Your task to perform on an android device: create a new album in the google photos Image 0: 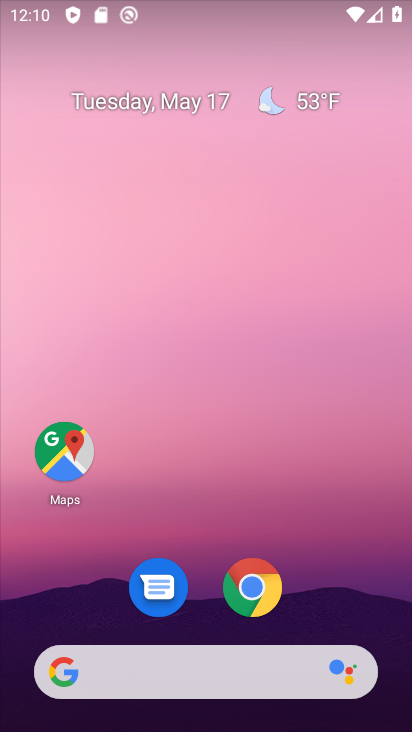
Step 0: drag from (218, 559) to (267, 157)
Your task to perform on an android device: create a new album in the google photos Image 1: 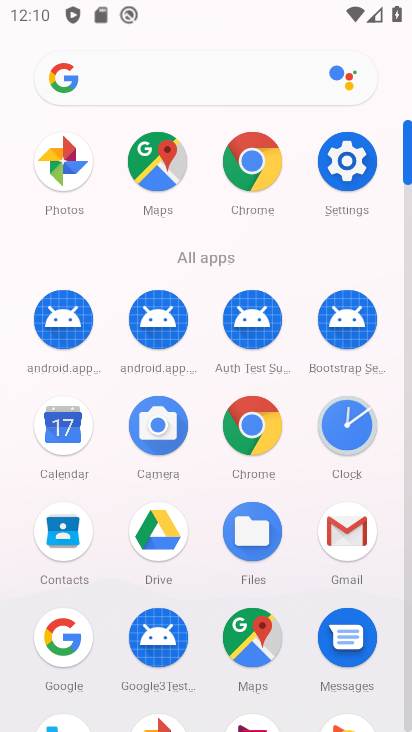
Step 1: drag from (220, 582) to (310, 159)
Your task to perform on an android device: create a new album in the google photos Image 2: 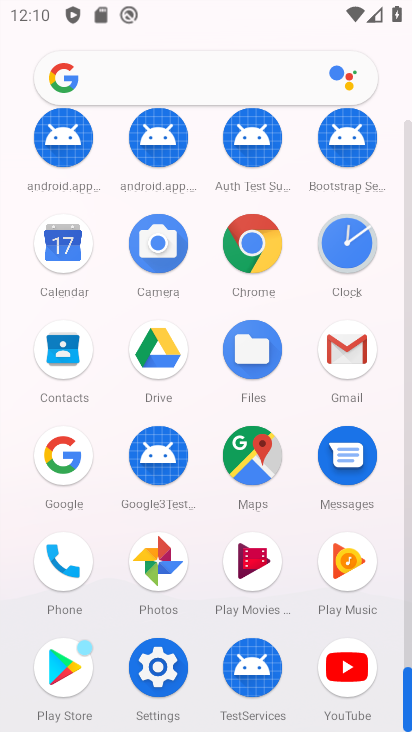
Step 2: click (162, 547)
Your task to perform on an android device: create a new album in the google photos Image 3: 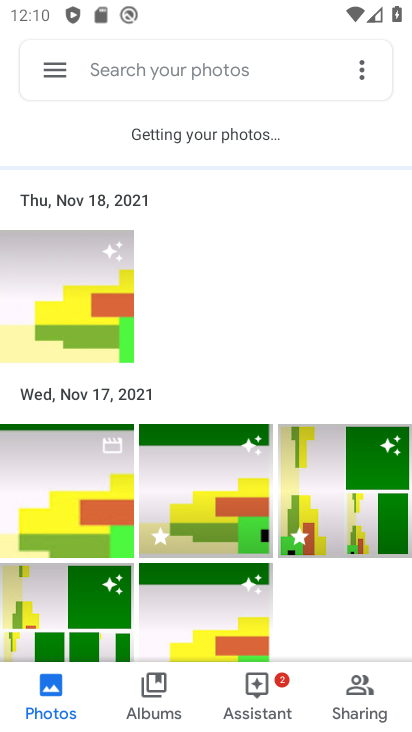
Step 3: click (157, 692)
Your task to perform on an android device: create a new album in the google photos Image 4: 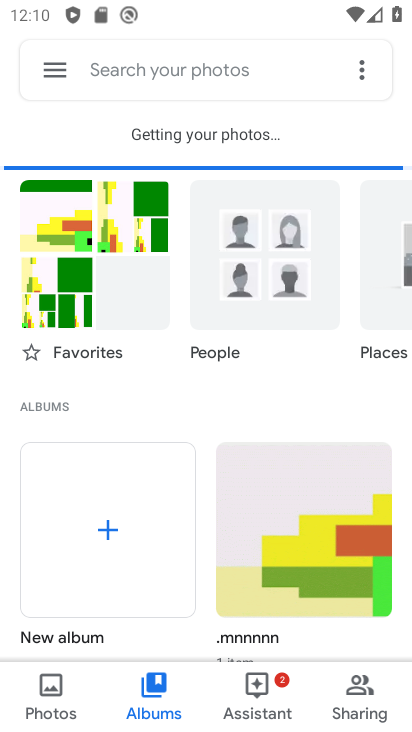
Step 4: click (111, 540)
Your task to perform on an android device: create a new album in the google photos Image 5: 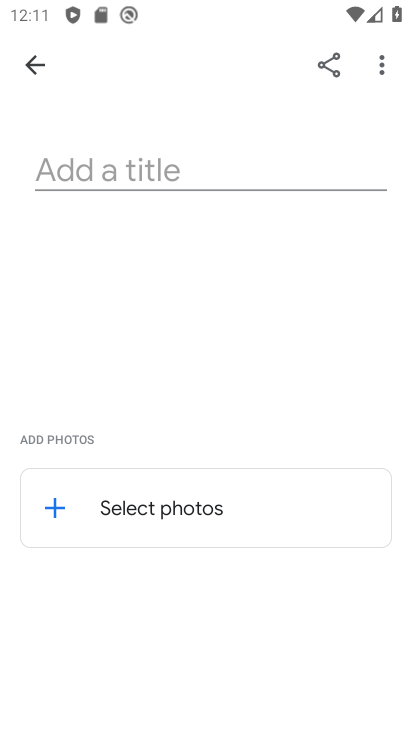
Step 5: click (151, 179)
Your task to perform on an android device: create a new album in the google photos Image 6: 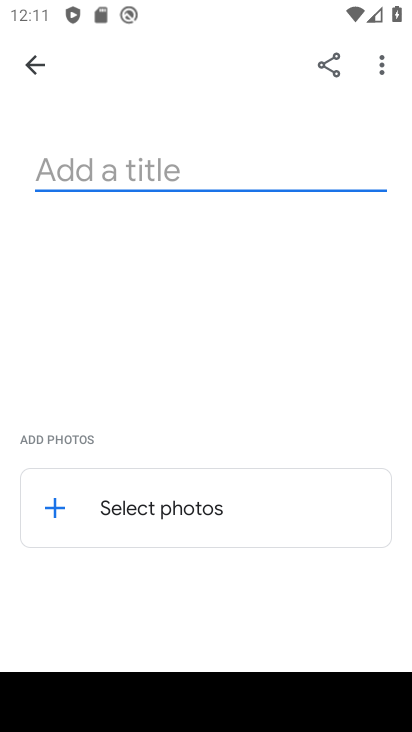
Step 6: type "bluff"
Your task to perform on an android device: create a new album in the google photos Image 7: 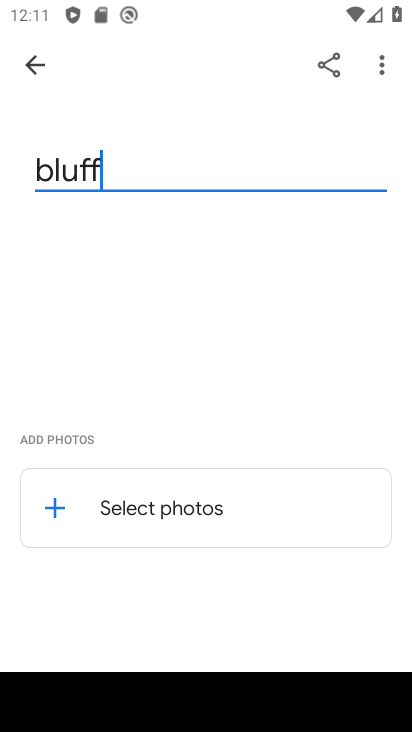
Step 7: click (58, 511)
Your task to perform on an android device: create a new album in the google photos Image 8: 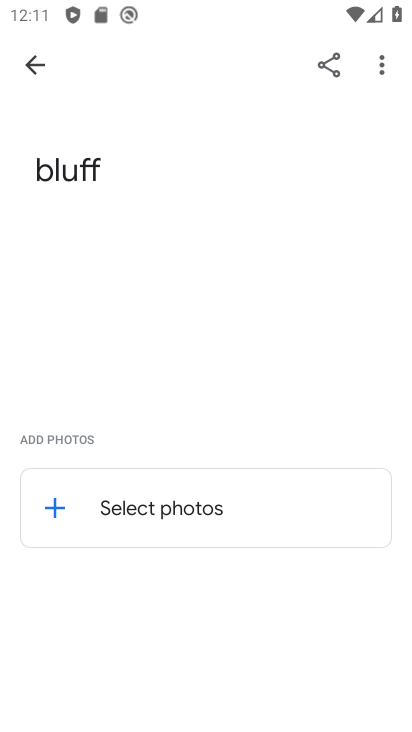
Step 8: click (58, 505)
Your task to perform on an android device: create a new album in the google photos Image 9: 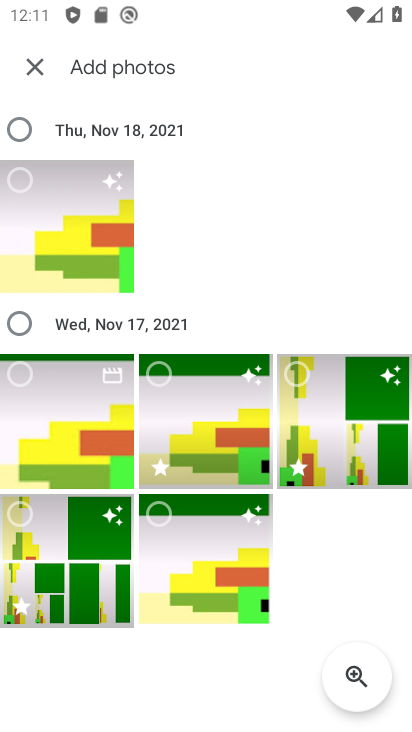
Step 9: click (48, 419)
Your task to perform on an android device: create a new album in the google photos Image 10: 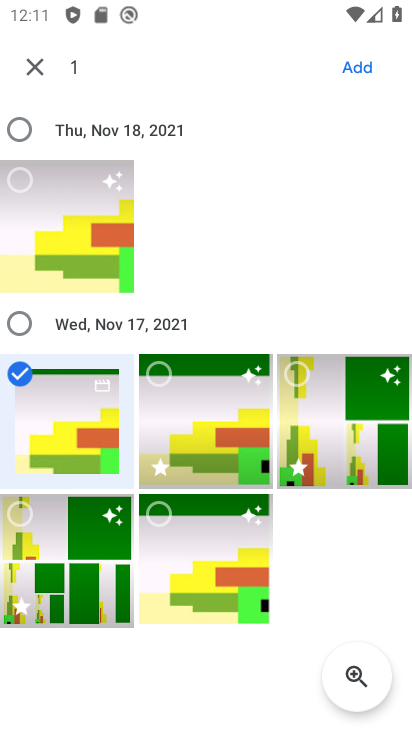
Step 10: click (40, 186)
Your task to perform on an android device: create a new album in the google photos Image 11: 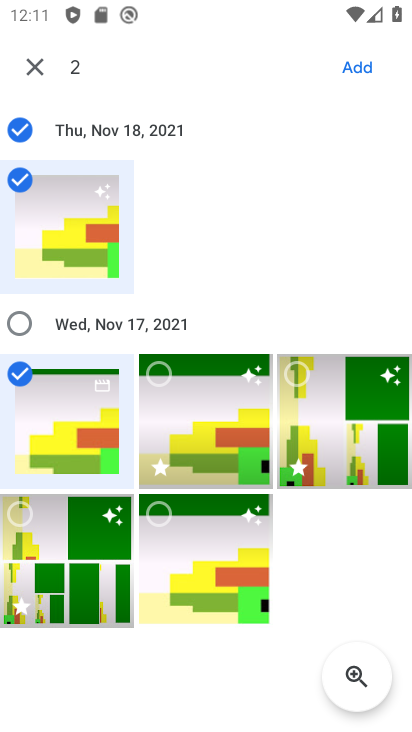
Step 11: click (185, 384)
Your task to perform on an android device: create a new album in the google photos Image 12: 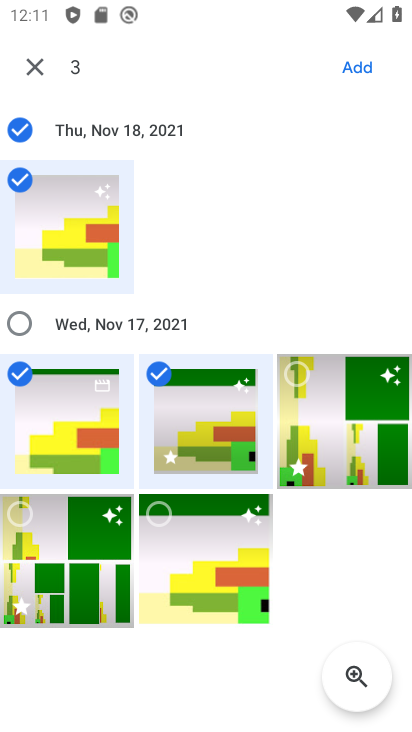
Step 12: click (343, 388)
Your task to perform on an android device: create a new album in the google photos Image 13: 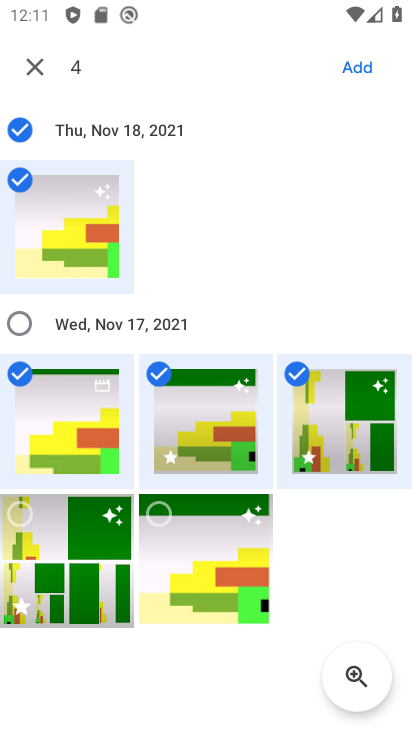
Step 13: click (373, 64)
Your task to perform on an android device: create a new album in the google photos Image 14: 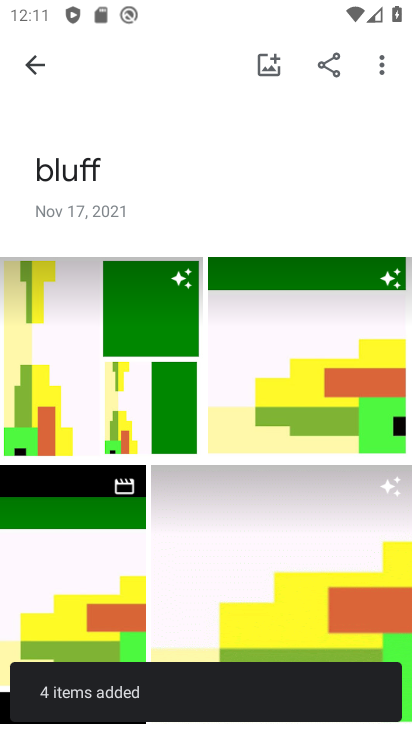
Step 14: task complete